Your task to perform on an android device: clear all cookies in the chrome app Image 0: 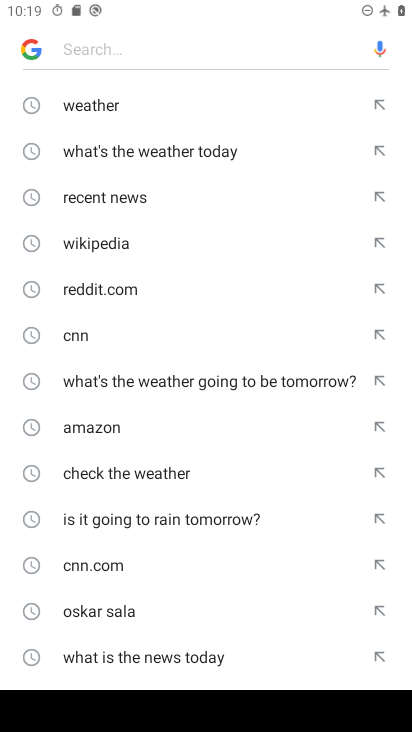
Step 0: press home button
Your task to perform on an android device: clear all cookies in the chrome app Image 1: 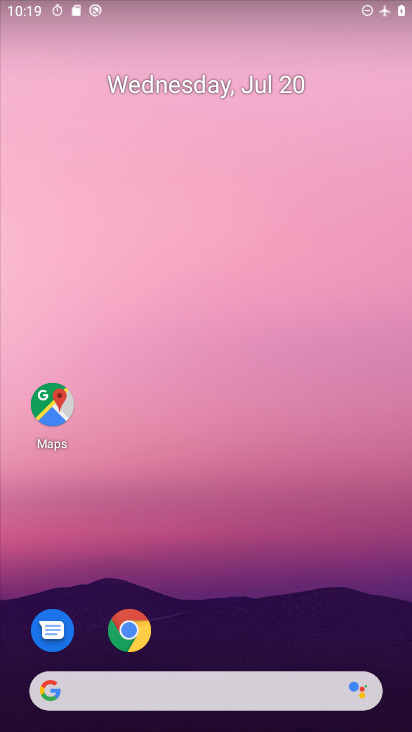
Step 1: drag from (229, 650) to (224, 188)
Your task to perform on an android device: clear all cookies in the chrome app Image 2: 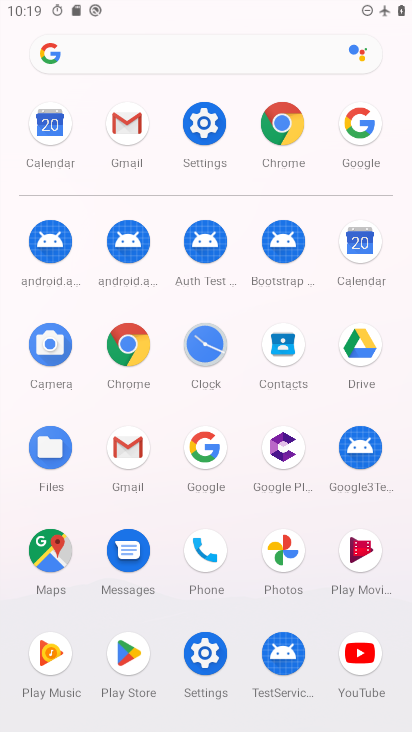
Step 2: click (137, 370)
Your task to perform on an android device: clear all cookies in the chrome app Image 3: 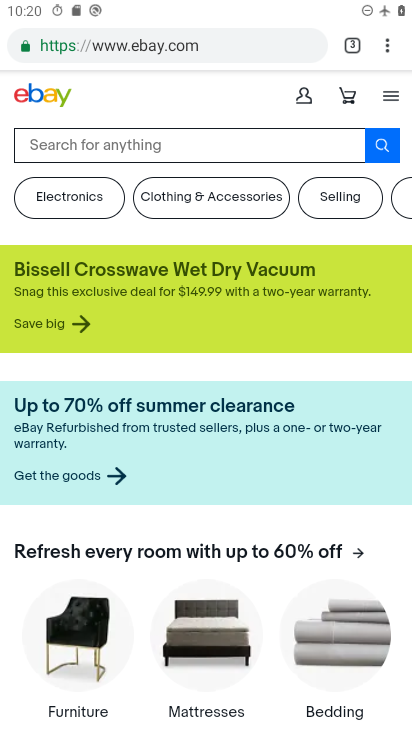
Step 3: click (387, 55)
Your task to perform on an android device: clear all cookies in the chrome app Image 4: 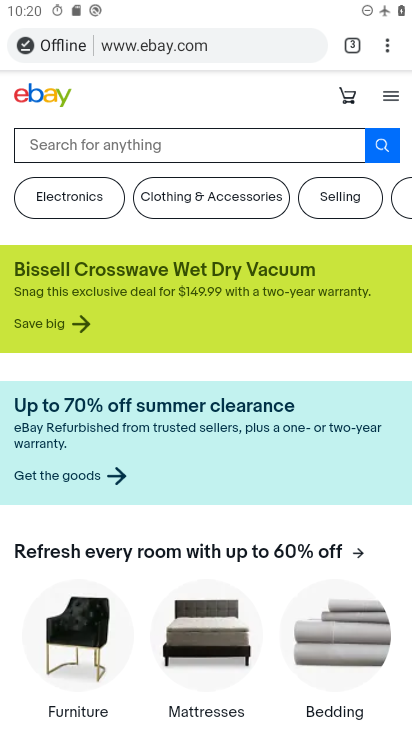
Step 4: click (393, 56)
Your task to perform on an android device: clear all cookies in the chrome app Image 5: 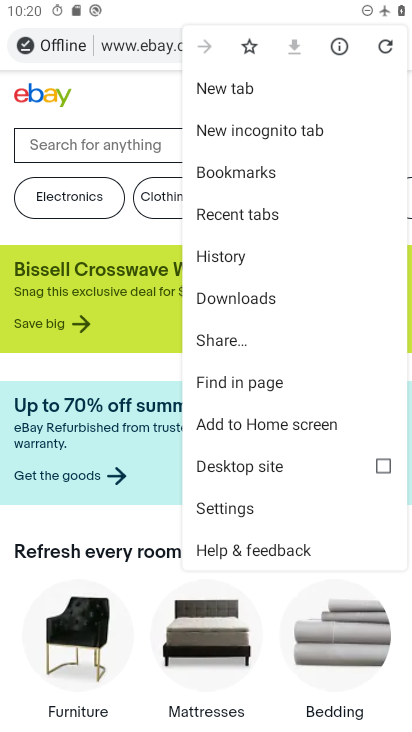
Step 5: click (217, 258)
Your task to perform on an android device: clear all cookies in the chrome app Image 6: 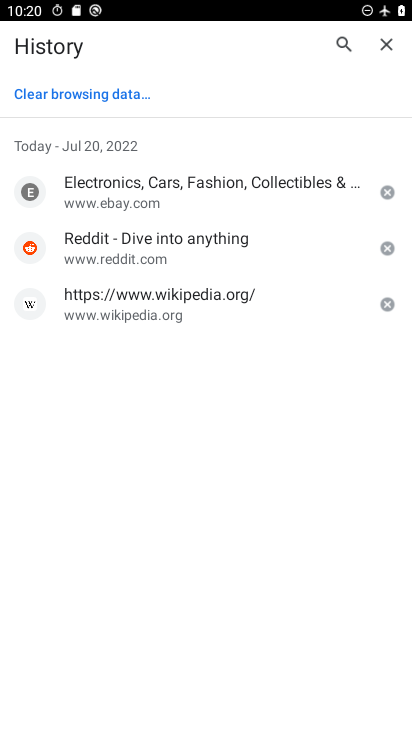
Step 6: click (100, 89)
Your task to perform on an android device: clear all cookies in the chrome app Image 7: 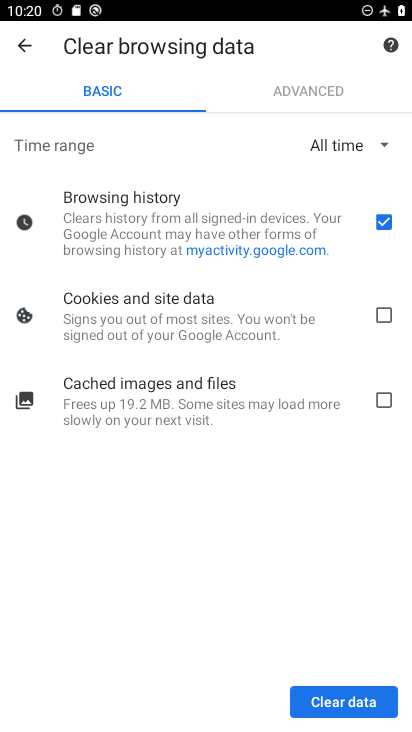
Step 7: click (382, 322)
Your task to perform on an android device: clear all cookies in the chrome app Image 8: 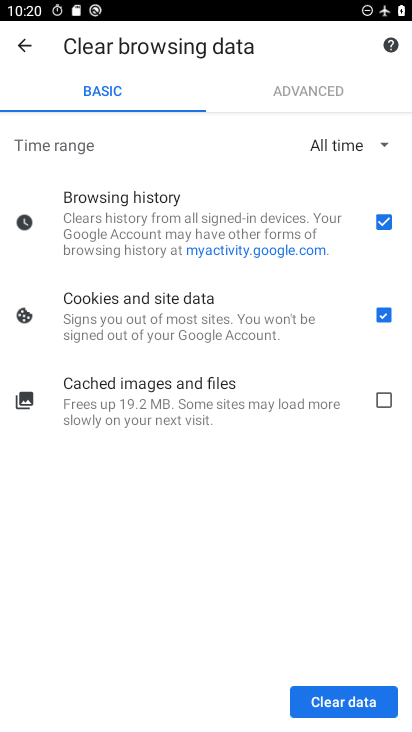
Step 8: click (382, 224)
Your task to perform on an android device: clear all cookies in the chrome app Image 9: 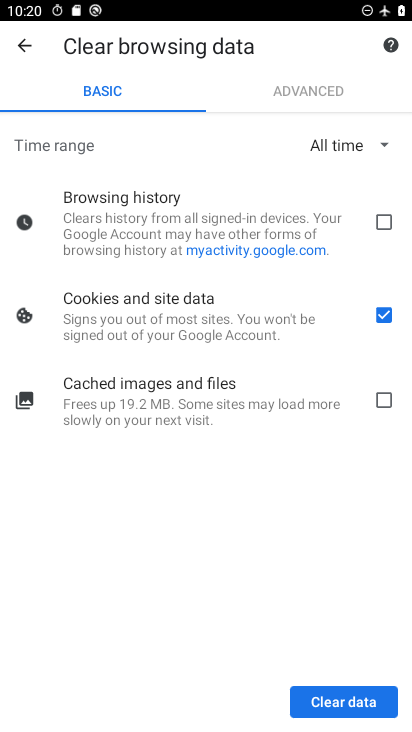
Step 9: click (353, 715)
Your task to perform on an android device: clear all cookies in the chrome app Image 10: 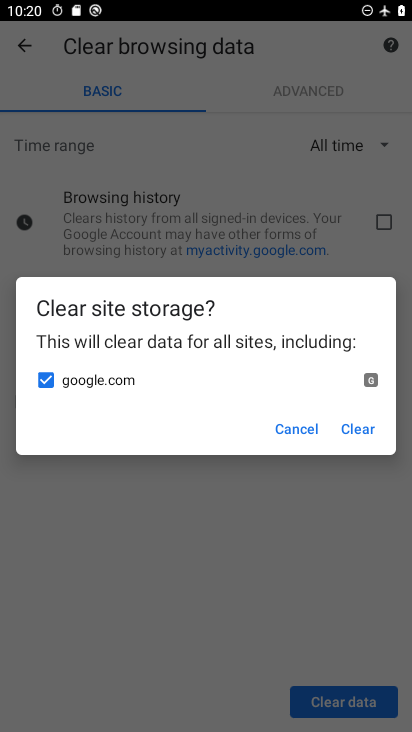
Step 10: click (359, 434)
Your task to perform on an android device: clear all cookies in the chrome app Image 11: 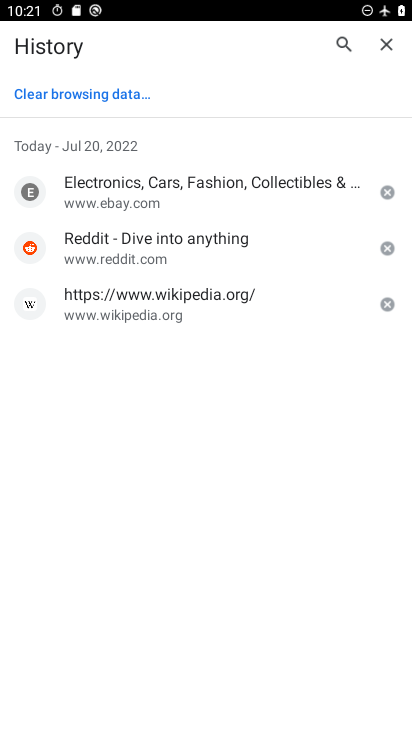
Step 11: click (90, 87)
Your task to perform on an android device: clear all cookies in the chrome app Image 12: 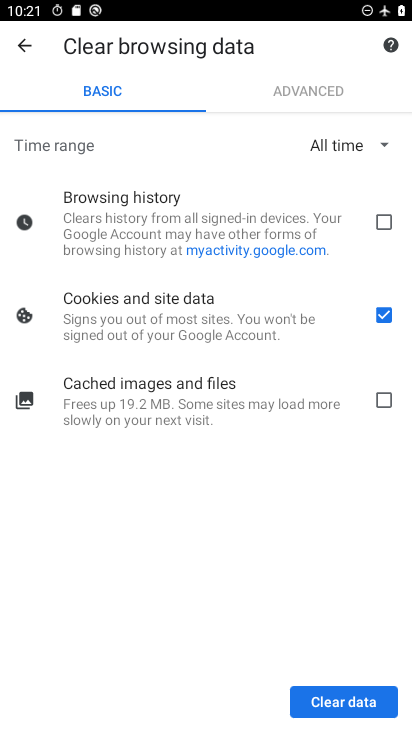
Step 12: click (330, 716)
Your task to perform on an android device: clear all cookies in the chrome app Image 13: 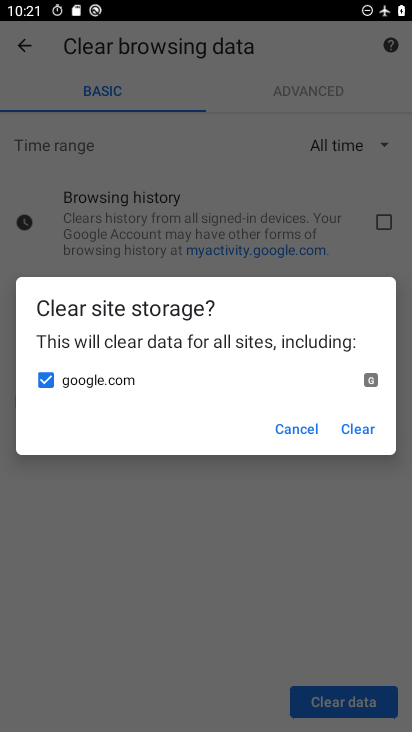
Step 13: click (353, 428)
Your task to perform on an android device: clear all cookies in the chrome app Image 14: 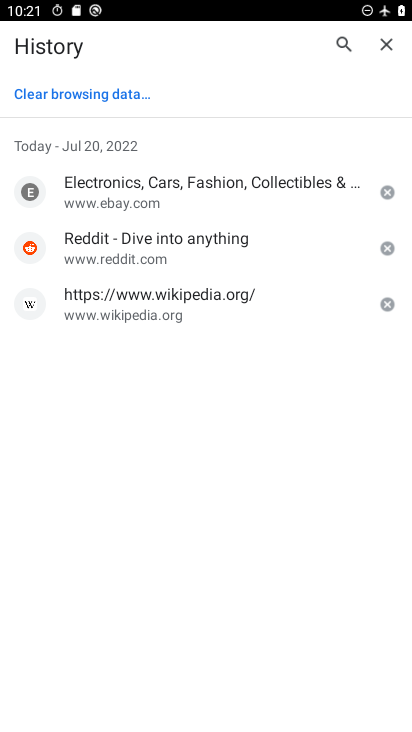
Step 14: task complete